Your task to perform on an android device: turn on the 24-hour format for clock Image 0: 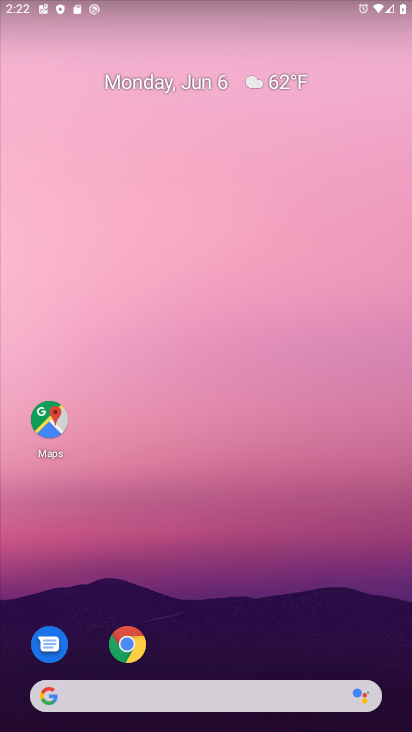
Step 0: drag from (197, 727) to (180, 117)
Your task to perform on an android device: turn on the 24-hour format for clock Image 1: 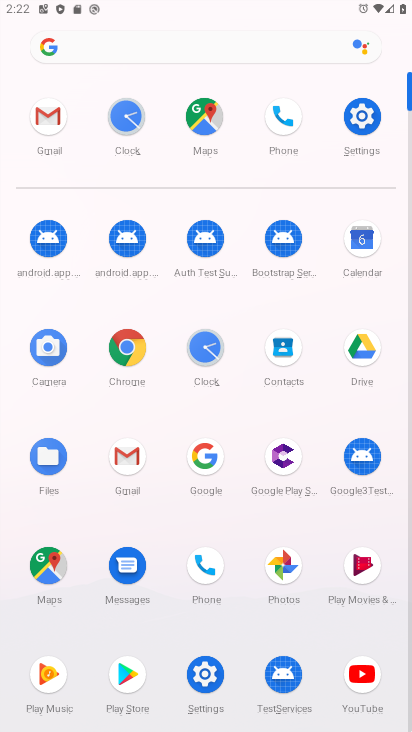
Step 1: click (355, 107)
Your task to perform on an android device: turn on the 24-hour format for clock Image 2: 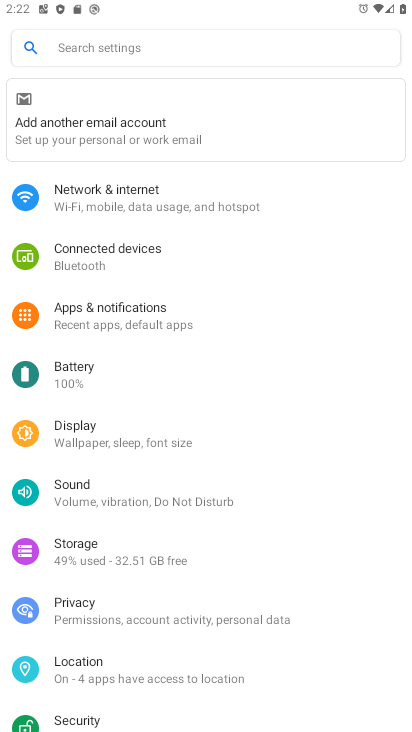
Step 2: drag from (226, 700) to (255, 264)
Your task to perform on an android device: turn on the 24-hour format for clock Image 3: 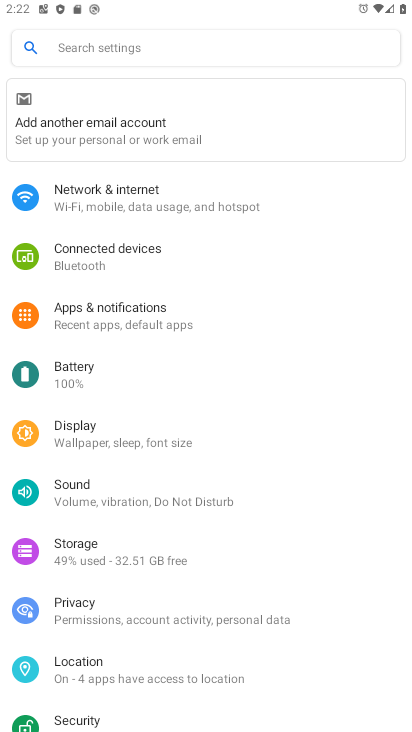
Step 3: drag from (292, 656) to (359, 211)
Your task to perform on an android device: turn on the 24-hour format for clock Image 4: 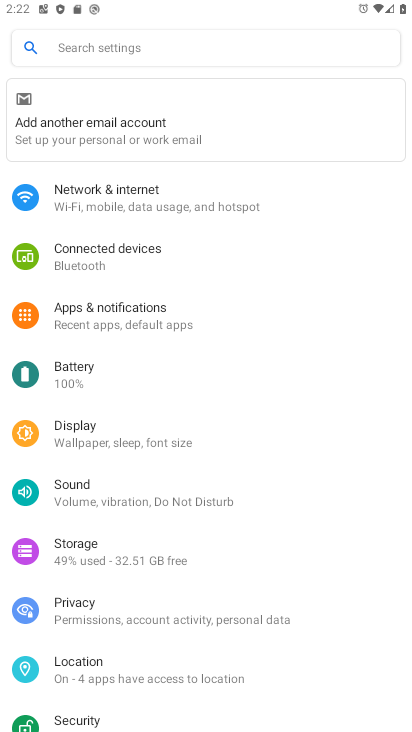
Step 4: drag from (301, 685) to (243, 177)
Your task to perform on an android device: turn on the 24-hour format for clock Image 5: 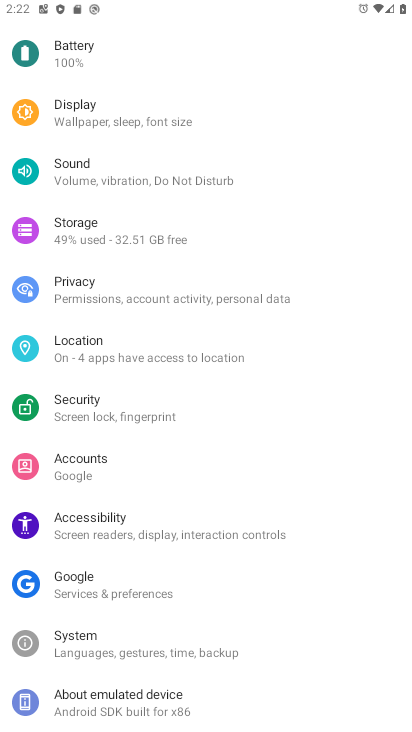
Step 5: click (153, 654)
Your task to perform on an android device: turn on the 24-hour format for clock Image 6: 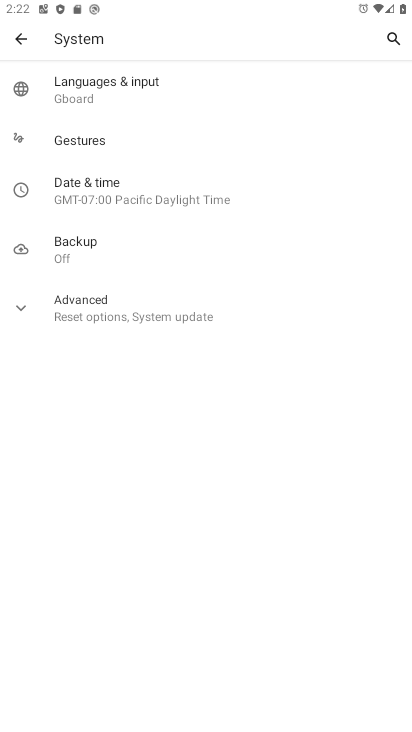
Step 6: click (84, 184)
Your task to perform on an android device: turn on the 24-hour format for clock Image 7: 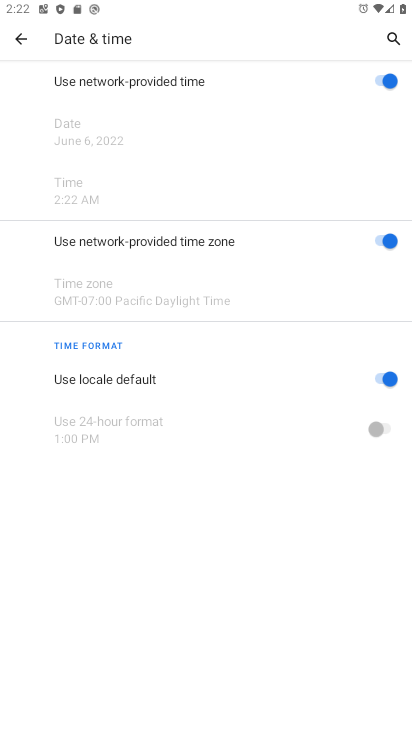
Step 7: click (384, 383)
Your task to perform on an android device: turn on the 24-hour format for clock Image 8: 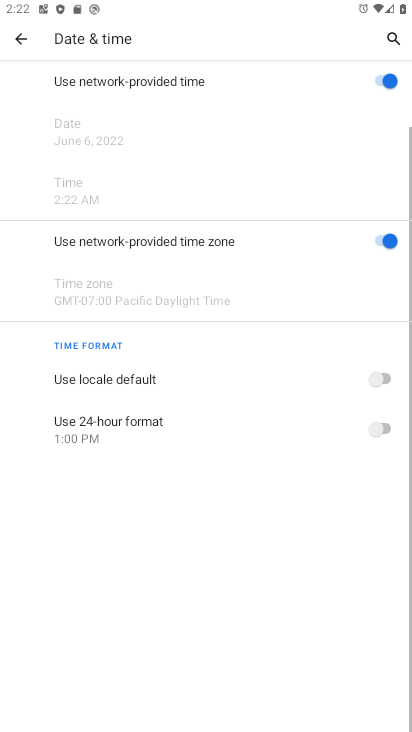
Step 8: click (372, 435)
Your task to perform on an android device: turn on the 24-hour format for clock Image 9: 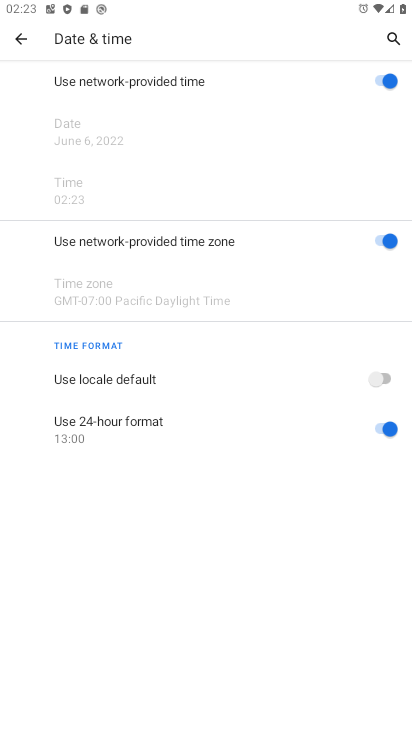
Step 9: task complete